Your task to perform on an android device: change keyboard looks Image 0: 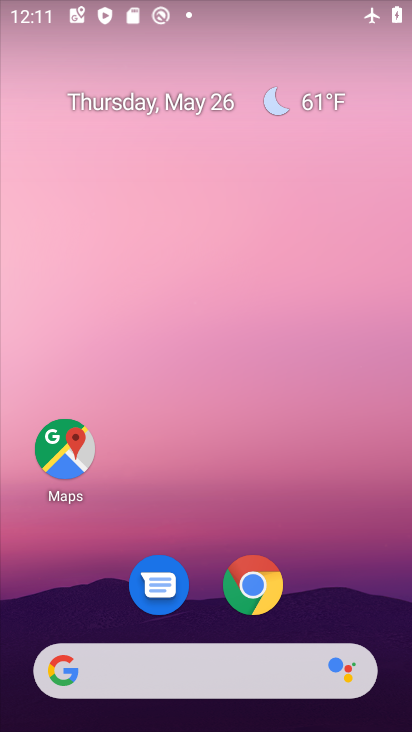
Step 0: drag from (209, 531) to (181, 60)
Your task to perform on an android device: change keyboard looks Image 1: 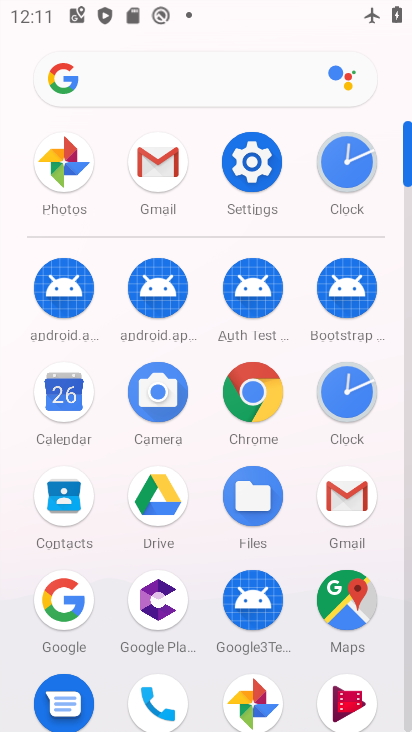
Step 1: click (254, 169)
Your task to perform on an android device: change keyboard looks Image 2: 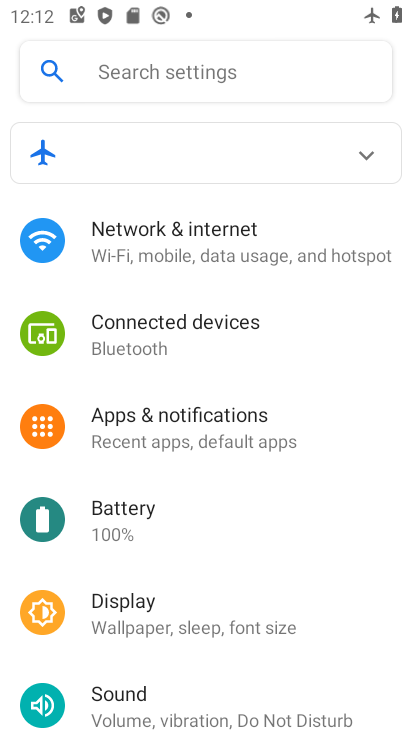
Step 2: drag from (251, 647) to (263, 109)
Your task to perform on an android device: change keyboard looks Image 3: 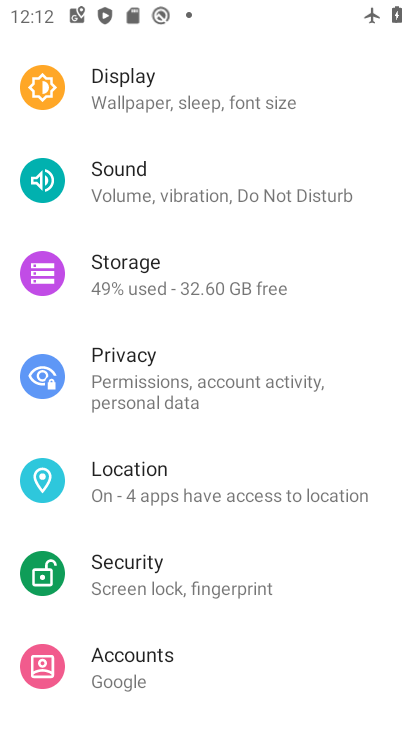
Step 3: drag from (258, 536) to (260, 33)
Your task to perform on an android device: change keyboard looks Image 4: 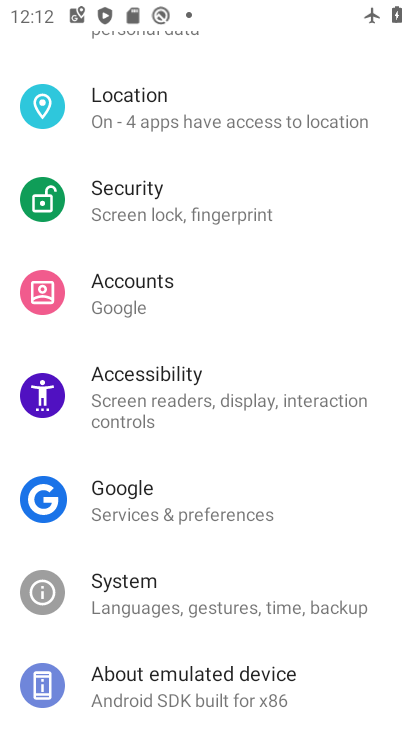
Step 4: click (212, 593)
Your task to perform on an android device: change keyboard looks Image 5: 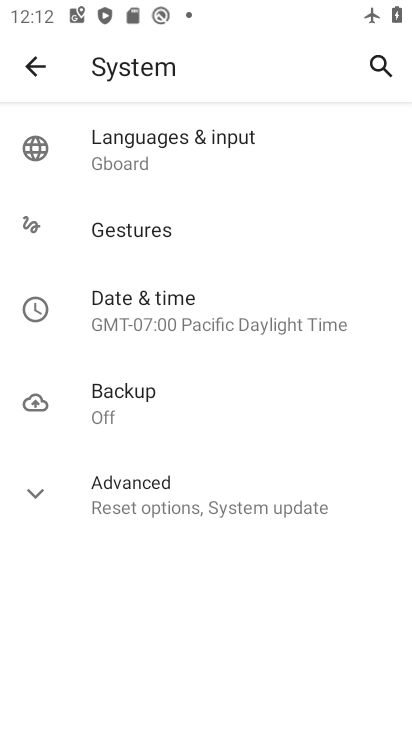
Step 5: click (156, 144)
Your task to perform on an android device: change keyboard looks Image 6: 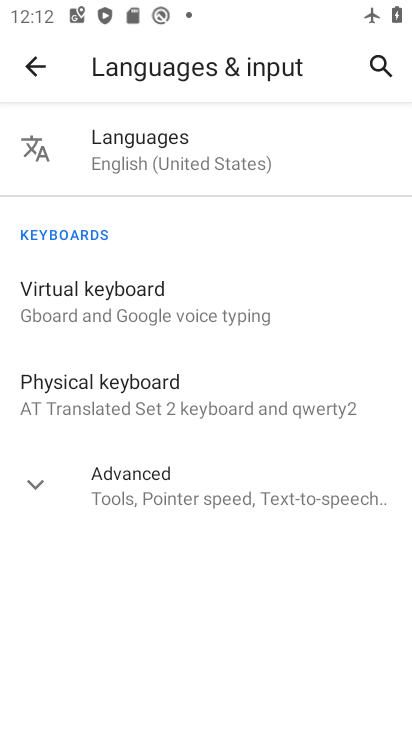
Step 6: click (126, 306)
Your task to perform on an android device: change keyboard looks Image 7: 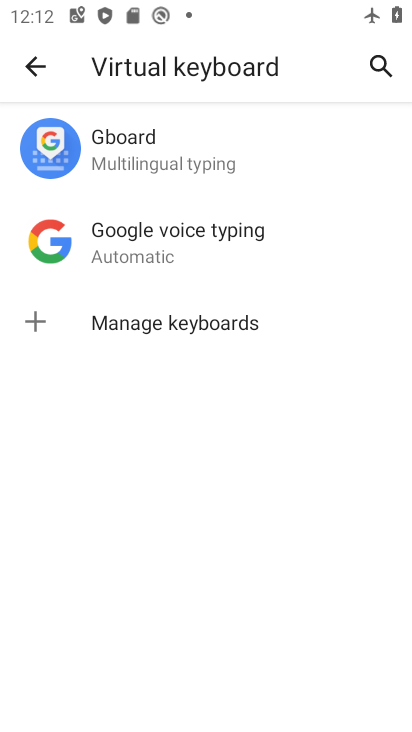
Step 7: click (153, 161)
Your task to perform on an android device: change keyboard looks Image 8: 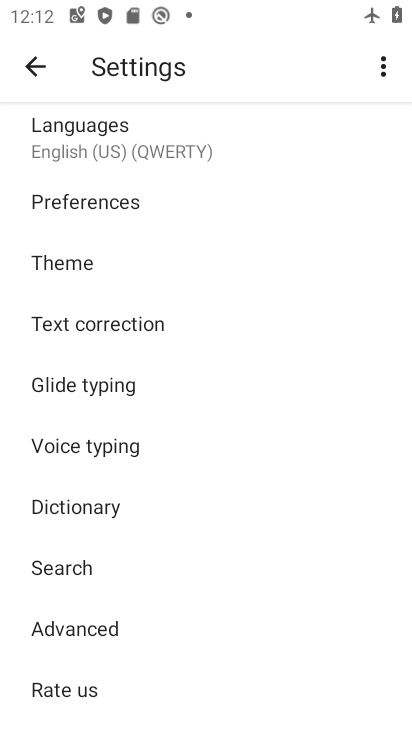
Step 8: click (127, 263)
Your task to perform on an android device: change keyboard looks Image 9: 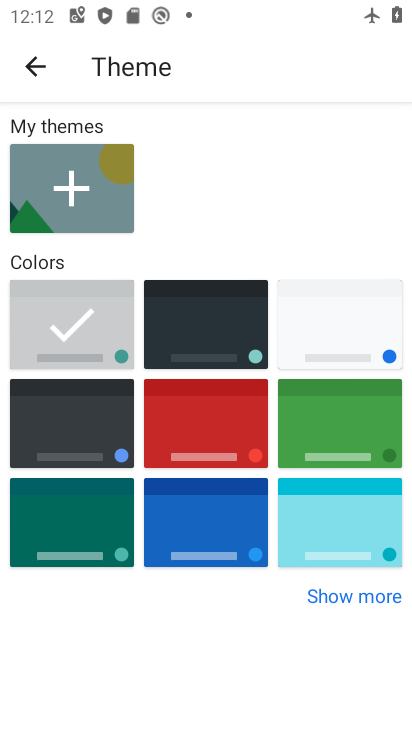
Step 9: click (229, 409)
Your task to perform on an android device: change keyboard looks Image 10: 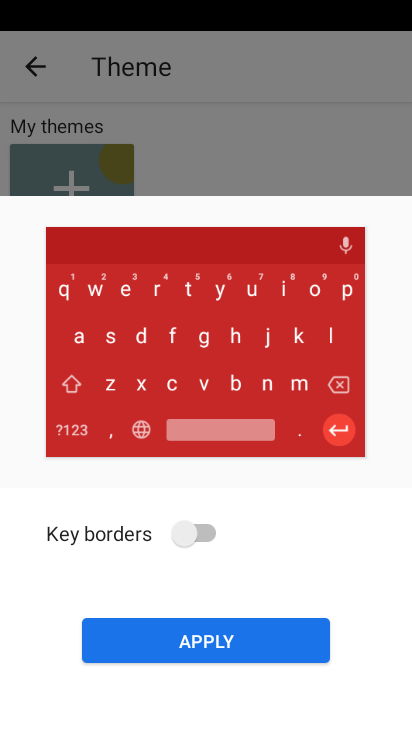
Step 10: click (190, 532)
Your task to perform on an android device: change keyboard looks Image 11: 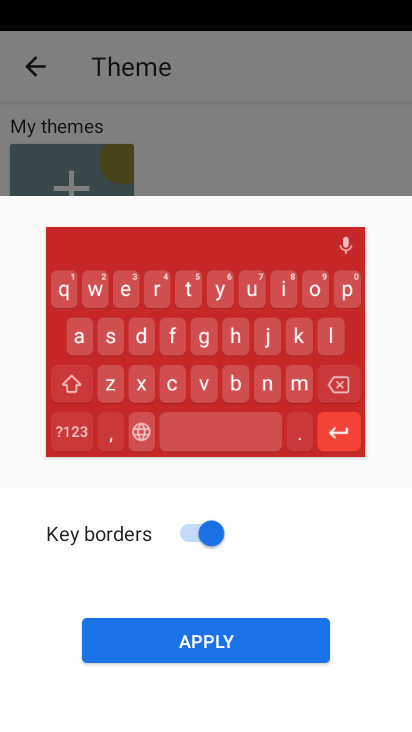
Step 11: click (234, 634)
Your task to perform on an android device: change keyboard looks Image 12: 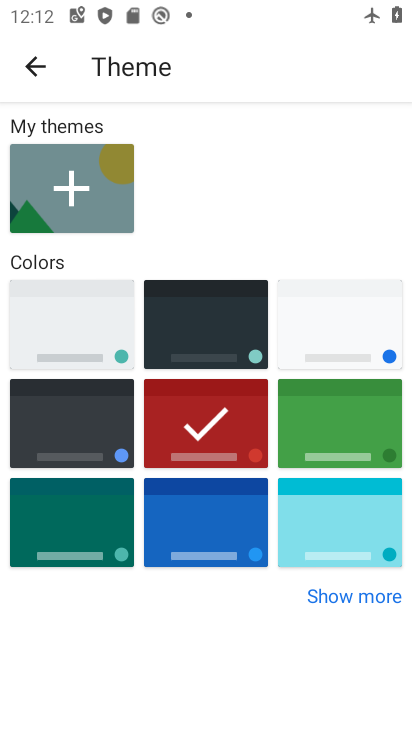
Step 12: task complete